Your task to perform on an android device: turn on sleep mode Image 0: 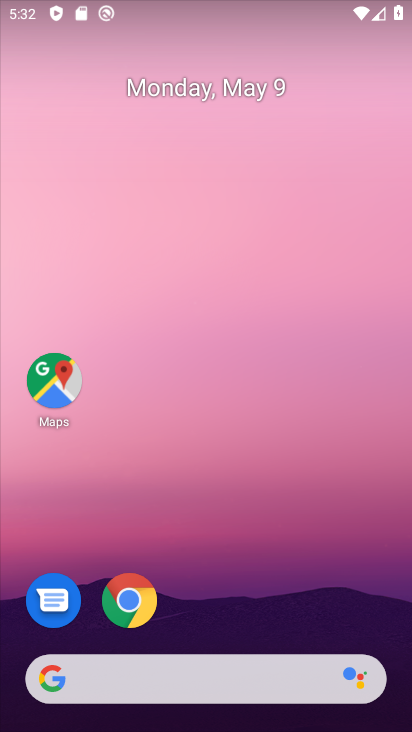
Step 0: drag from (252, 638) to (360, 74)
Your task to perform on an android device: turn on sleep mode Image 1: 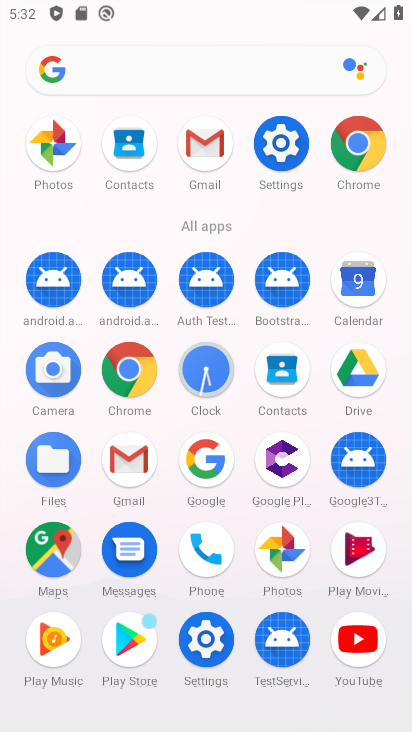
Step 1: click (208, 668)
Your task to perform on an android device: turn on sleep mode Image 2: 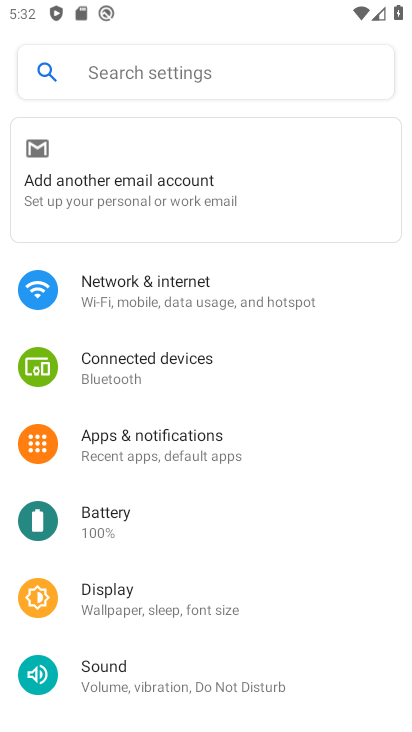
Step 2: click (197, 68)
Your task to perform on an android device: turn on sleep mode Image 3: 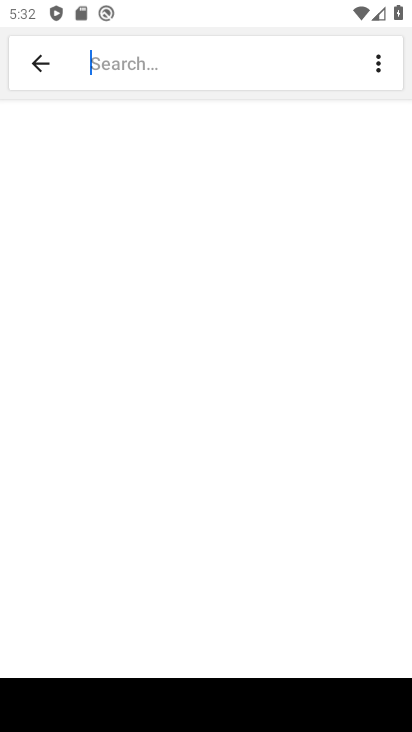
Step 3: type "sleep mode"
Your task to perform on an android device: turn on sleep mode Image 4: 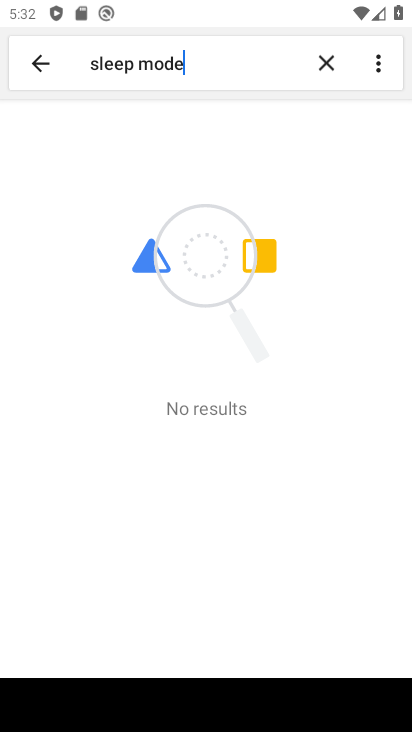
Step 4: task complete